Your task to perform on an android device: turn on showing notifications on the lock screen Image 0: 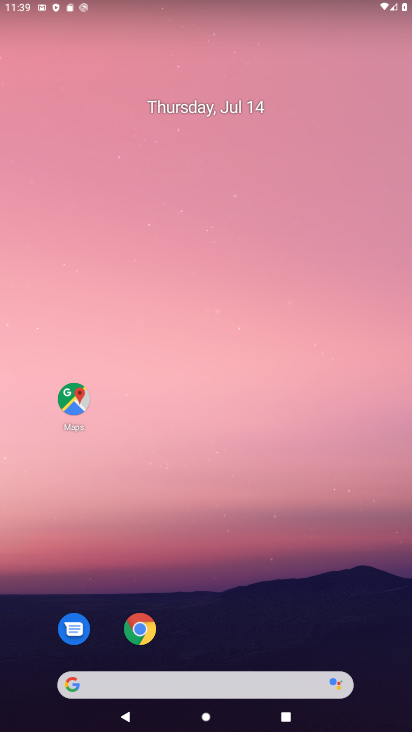
Step 0: drag from (229, 645) to (283, 171)
Your task to perform on an android device: turn on showing notifications on the lock screen Image 1: 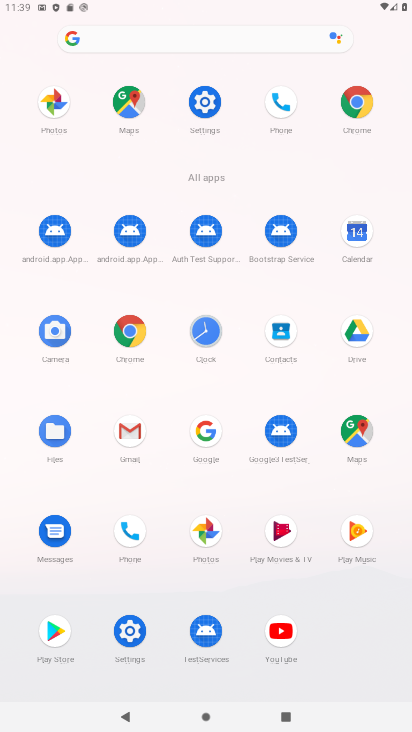
Step 1: click (134, 654)
Your task to perform on an android device: turn on showing notifications on the lock screen Image 2: 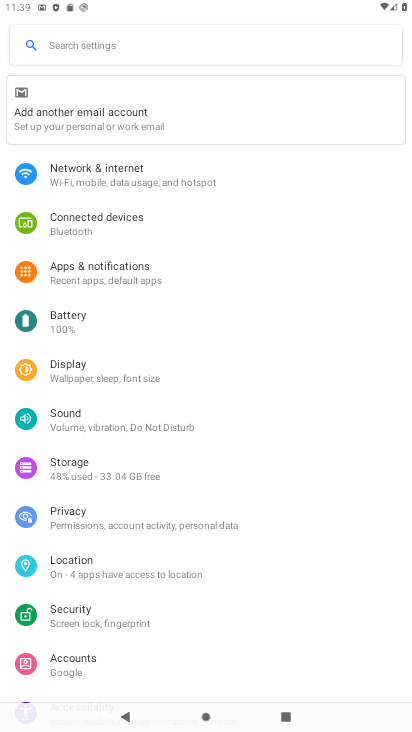
Step 2: click (143, 288)
Your task to perform on an android device: turn on showing notifications on the lock screen Image 3: 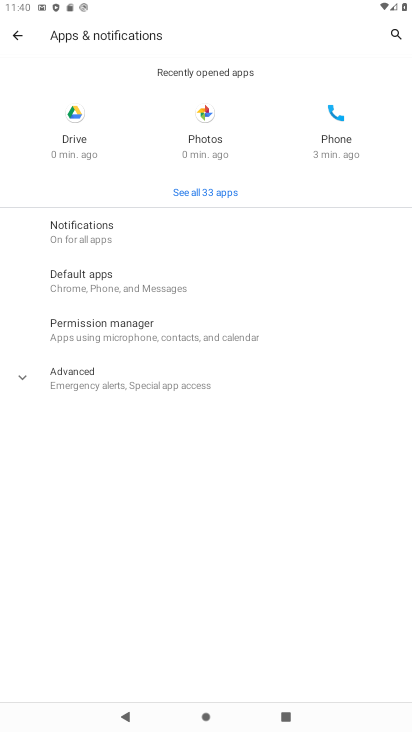
Step 3: click (138, 246)
Your task to perform on an android device: turn on showing notifications on the lock screen Image 4: 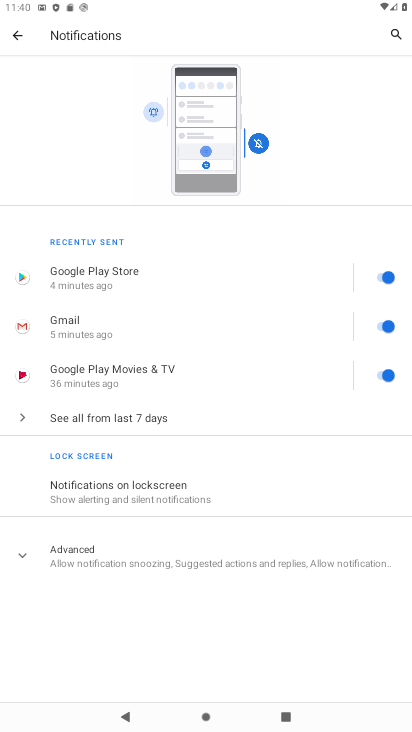
Step 4: click (254, 551)
Your task to perform on an android device: turn on showing notifications on the lock screen Image 5: 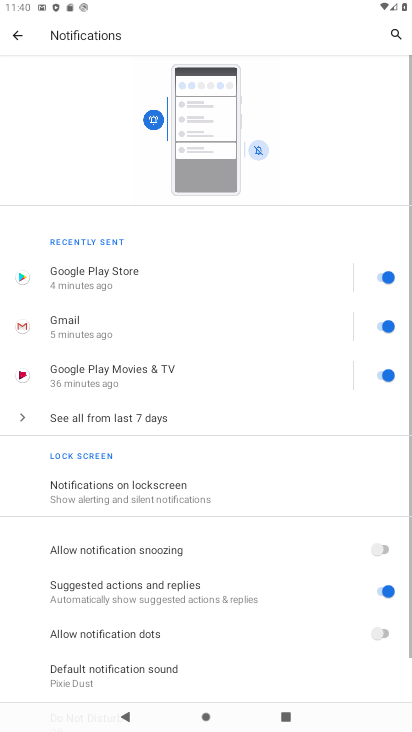
Step 5: click (227, 490)
Your task to perform on an android device: turn on showing notifications on the lock screen Image 6: 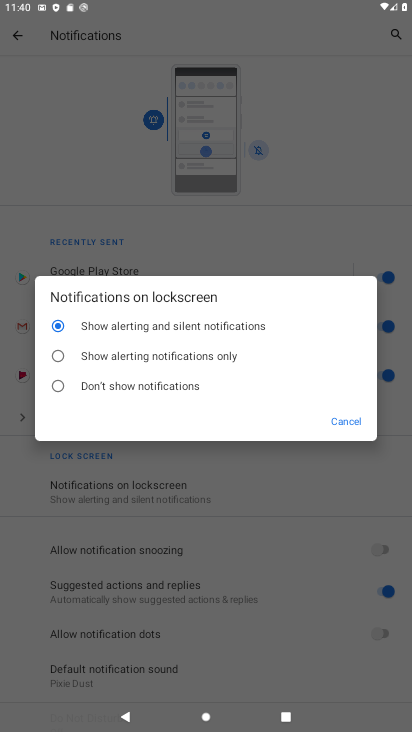
Step 6: task complete